Your task to perform on an android device: toggle sleep mode Image 0: 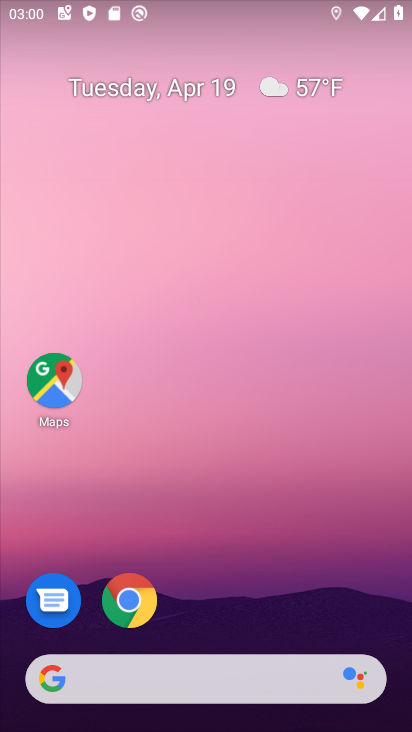
Step 0: drag from (395, 593) to (273, 111)
Your task to perform on an android device: toggle sleep mode Image 1: 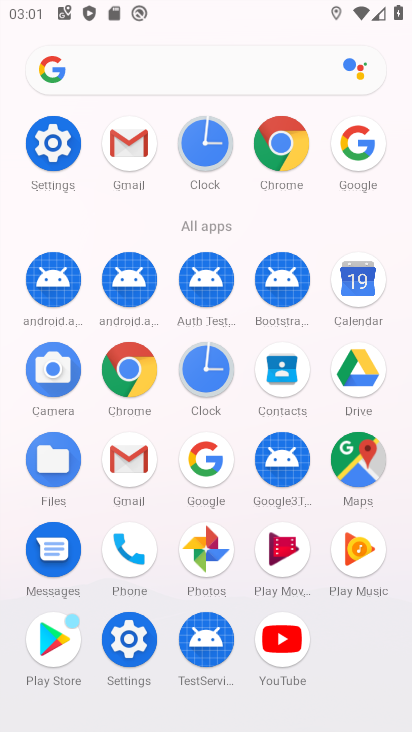
Step 1: click (61, 143)
Your task to perform on an android device: toggle sleep mode Image 2: 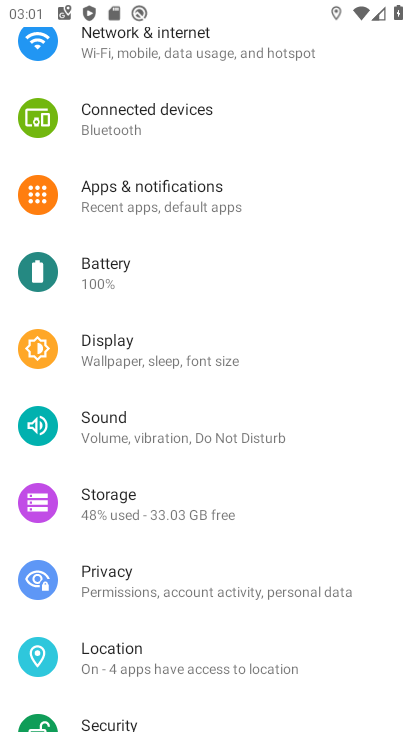
Step 2: click (165, 356)
Your task to perform on an android device: toggle sleep mode Image 3: 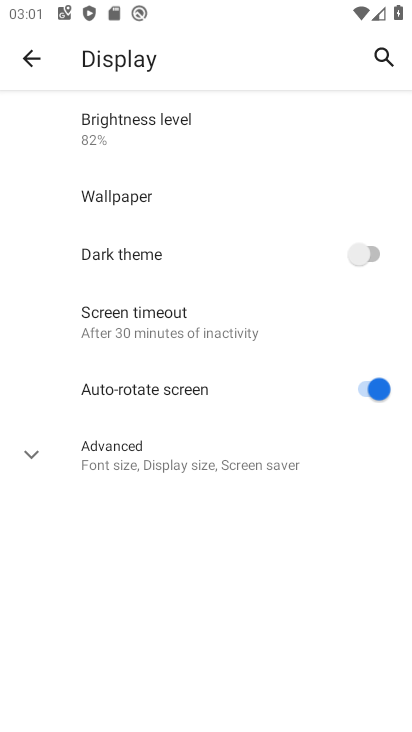
Step 3: click (174, 442)
Your task to perform on an android device: toggle sleep mode Image 4: 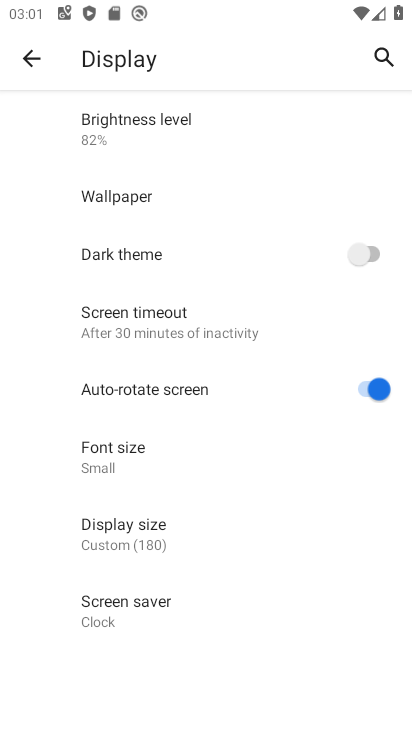
Step 4: task complete